Your task to perform on an android device: Go to network settings Image 0: 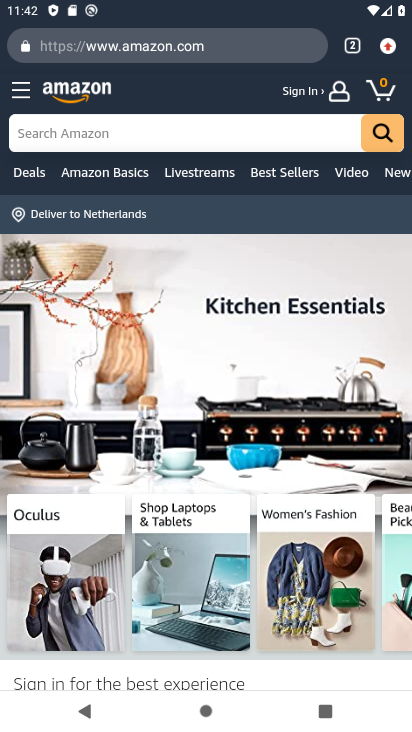
Step 0: press home button
Your task to perform on an android device: Go to network settings Image 1: 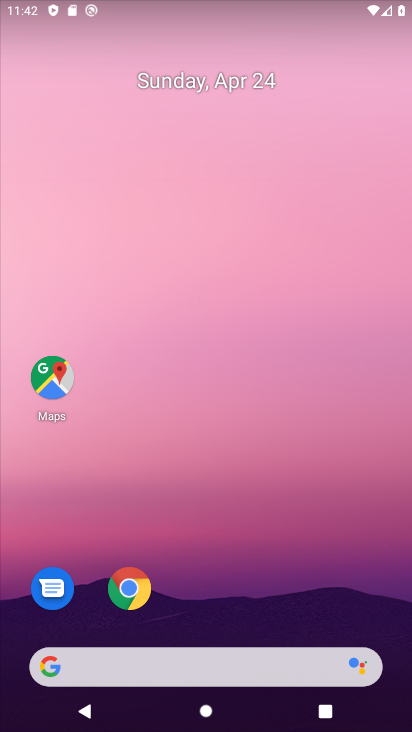
Step 1: drag from (291, 601) to (233, 162)
Your task to perform on an android device: Go to network settings Image 2: 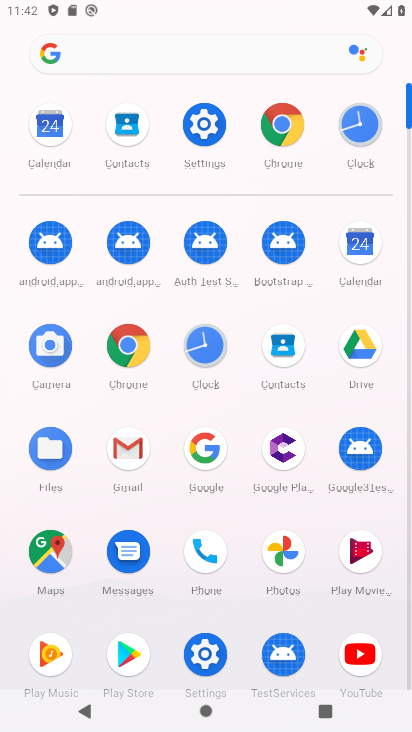
Step 2: click (202, 133)
Your task to perform on an android device: Go to network settings Image 3: 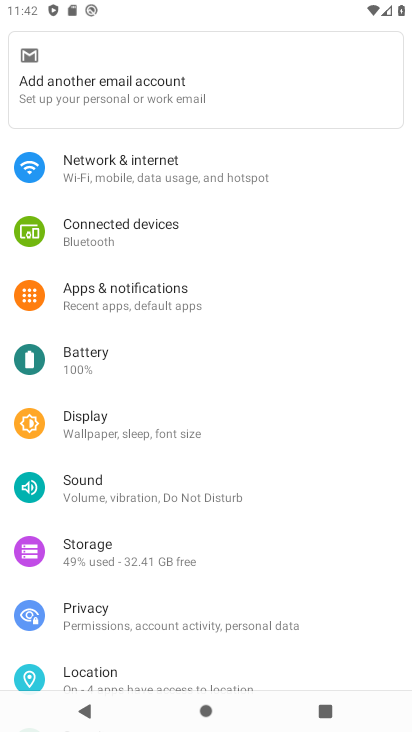
Step 3: click (172, 175)
Your task to perform on an android device: Go to network settings Image 4: 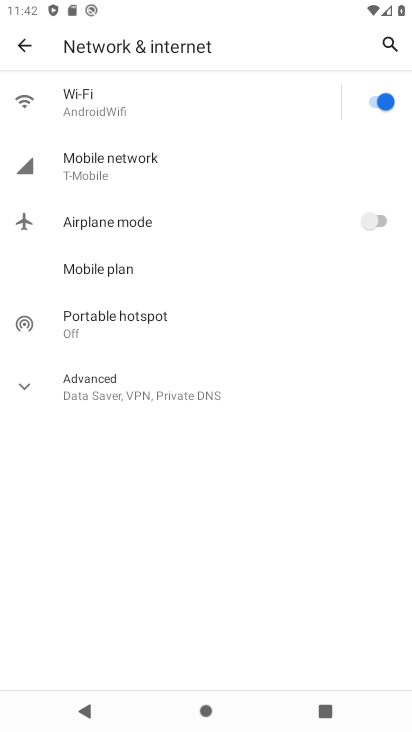
Step 4: task complete